Your task to perform on an android device: Open my contact list Image 0: 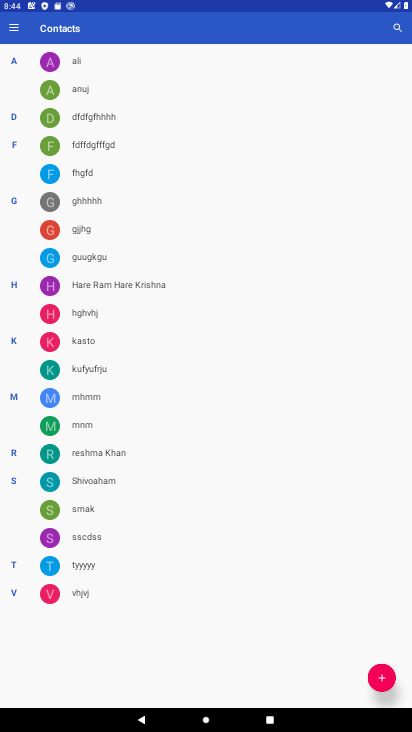
Step 0: press home button
Your task to perform on an android device: Open my contact list Image 1: 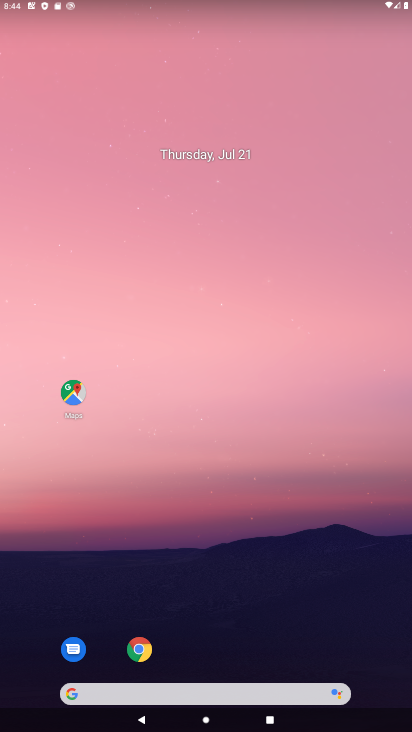
Step 1: drag from (259, 610) to (269, 18)
Your task to perform on an android device: Open my contact list Image 2: 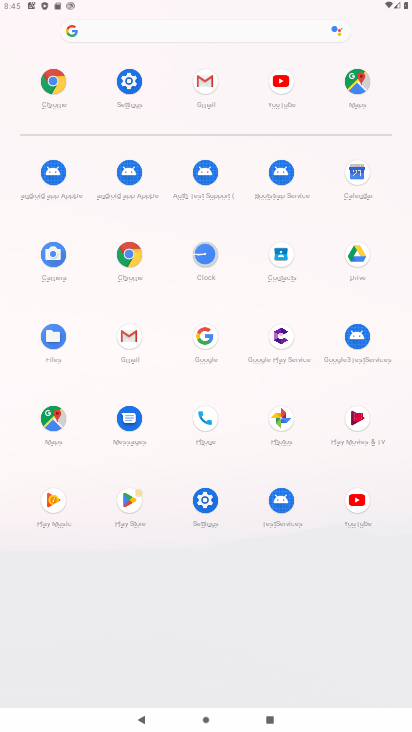
Step 2: click (281, 264)
Your task to perform on an android device: Open my contact list Image 3: 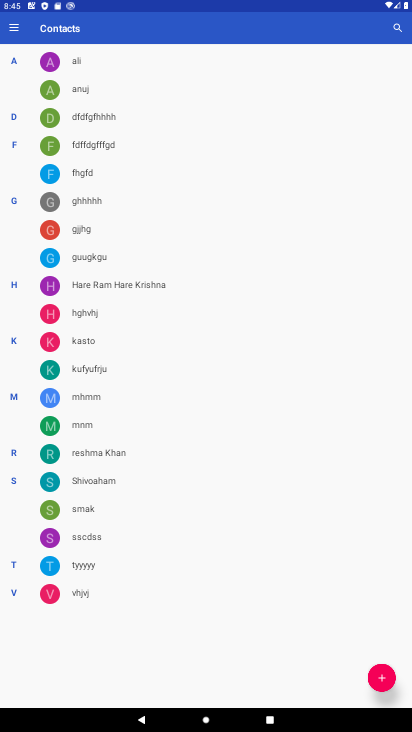
Step 3: task complete